Your task to perform on an android device: Go to calendar. Show me events next week Image 0: 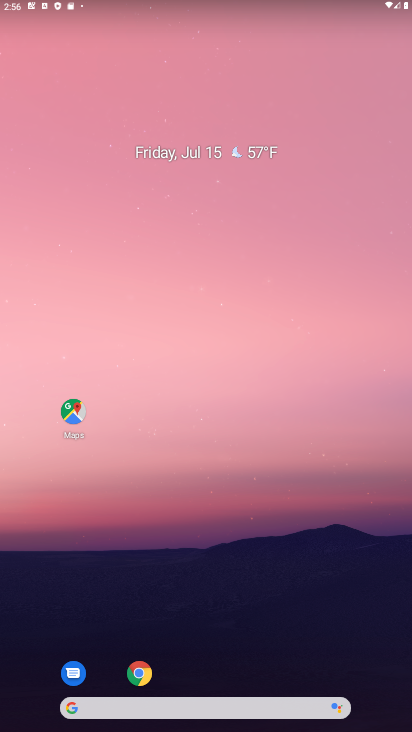
Step 0: drag from (377, 655) to (316, 186)
Your task to perform on an android device: Go to calendar. Show me events next week Image 1: 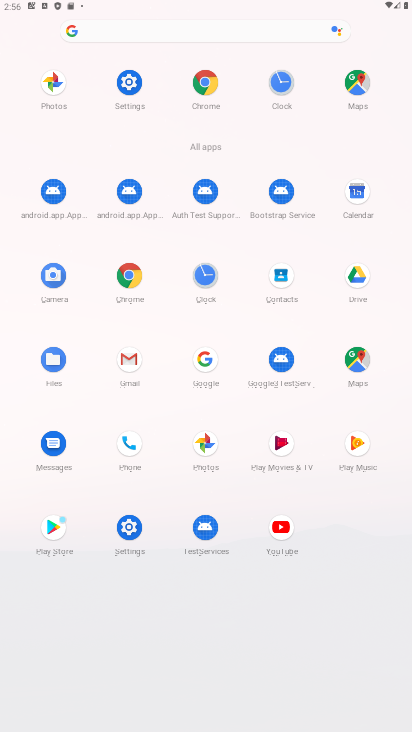
Step 1: click (356, 192)
Your task to perform on an android device: Go to calendar. Show me events next week Image 2: 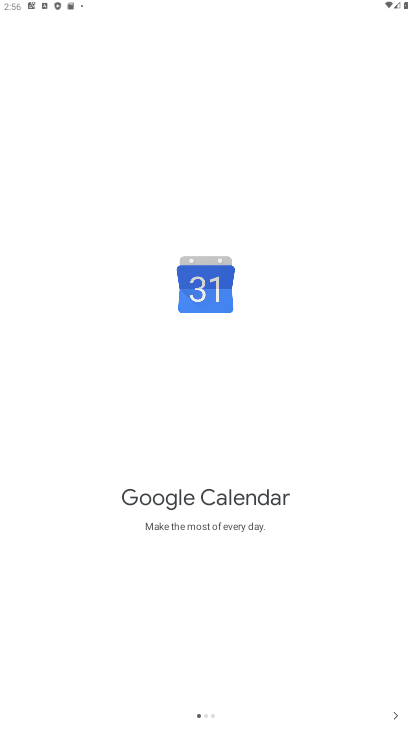
Step 2: click (399, 714)
Your task to perform on an android device: Go to calendar. Show me events next week Image 3: 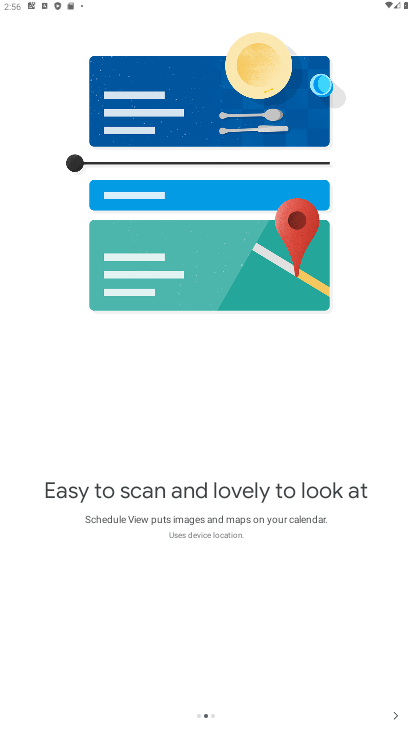
Step 3: click (395, 714)
Your task to perform on an android device: Go to calendar. Show me events next week Image 4: 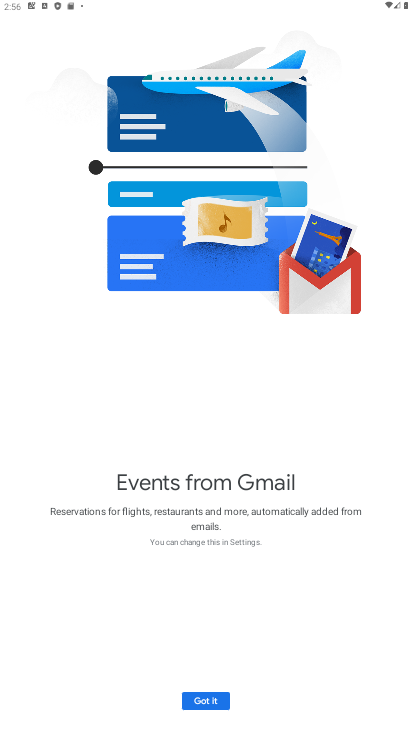
Step 4: click (199, 699)
Your task to perform on an android device: Go to calendar. Show me events next week Image 5: 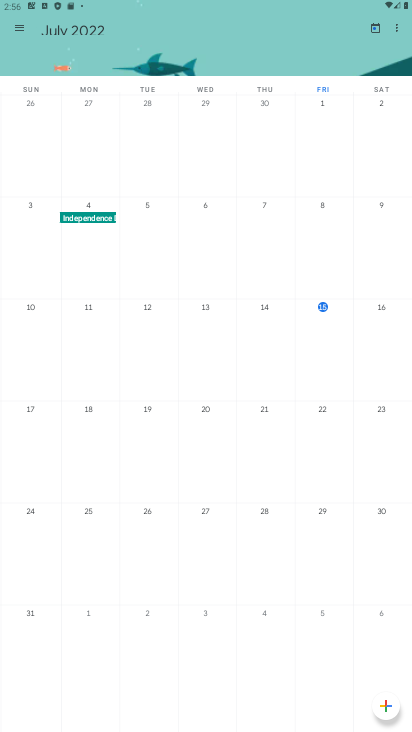
Step 5: click (21, 27)
Your task to perform on an android device: Go to calendar. Show me events next week Image 6: 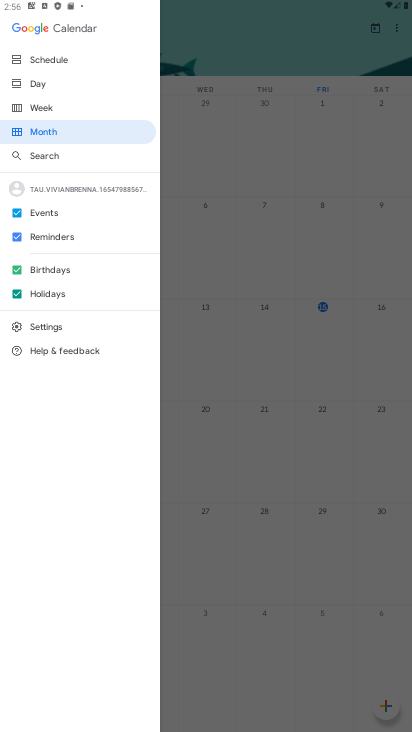
Step 6: click (46, 103)
Your task to perform on an android device: Go to calendar. Show me events next week Image 7: 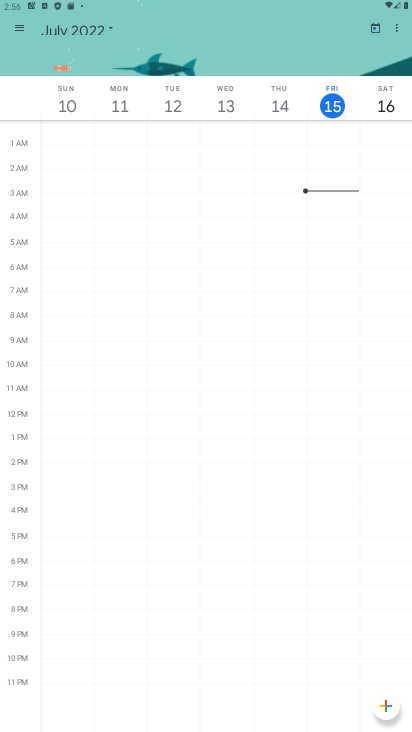
Step 7: click (107, 28)
Your task to perform on an android device: Go to calendar. Show me events next week Image 8: 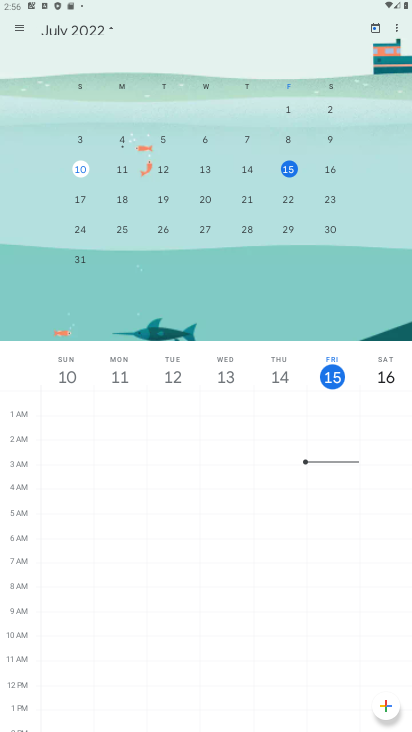
Step 8: click (79, 200)
Your task to perform on an android device: Go to calendar. Show me events next week Image 9: 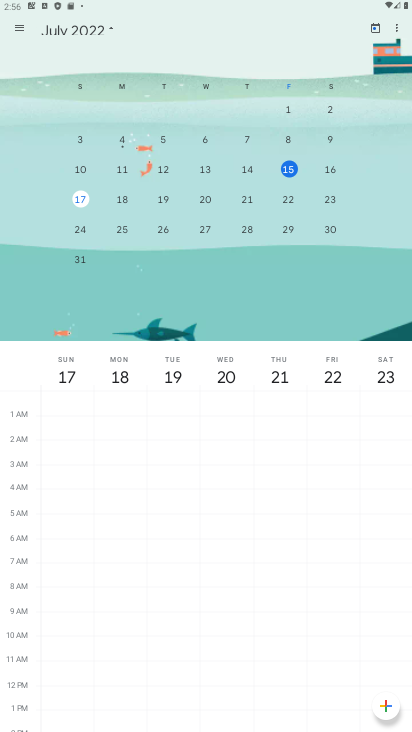
Step 9: task complete